Your task to perform on an android device: Show me some nice wallpapers for my laptop Image 0: 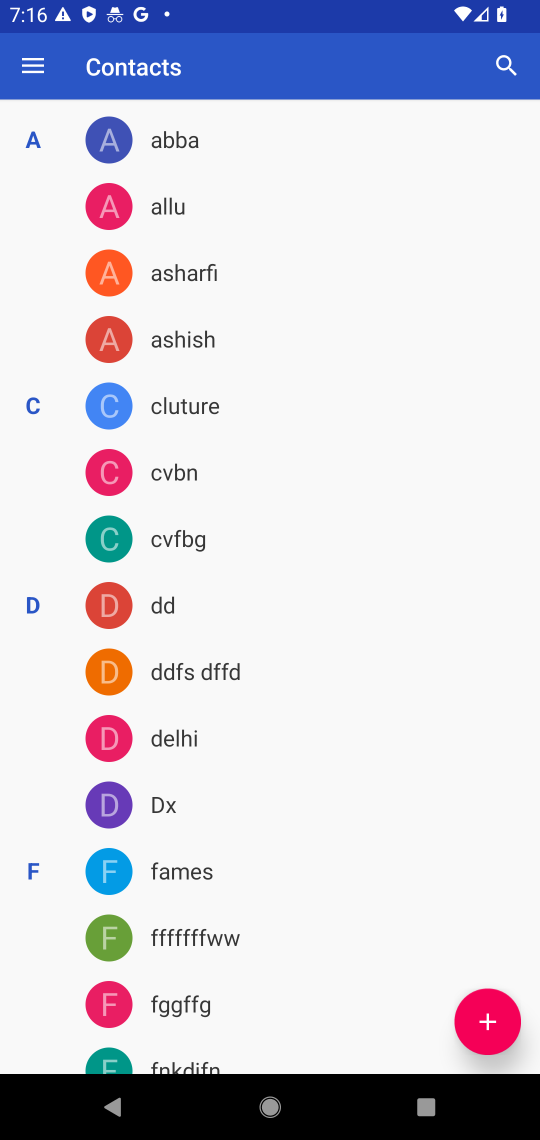
Step 0: press home button
Your task to perform on an android device: Show me some nice wallpapers for my laptop Image 1: 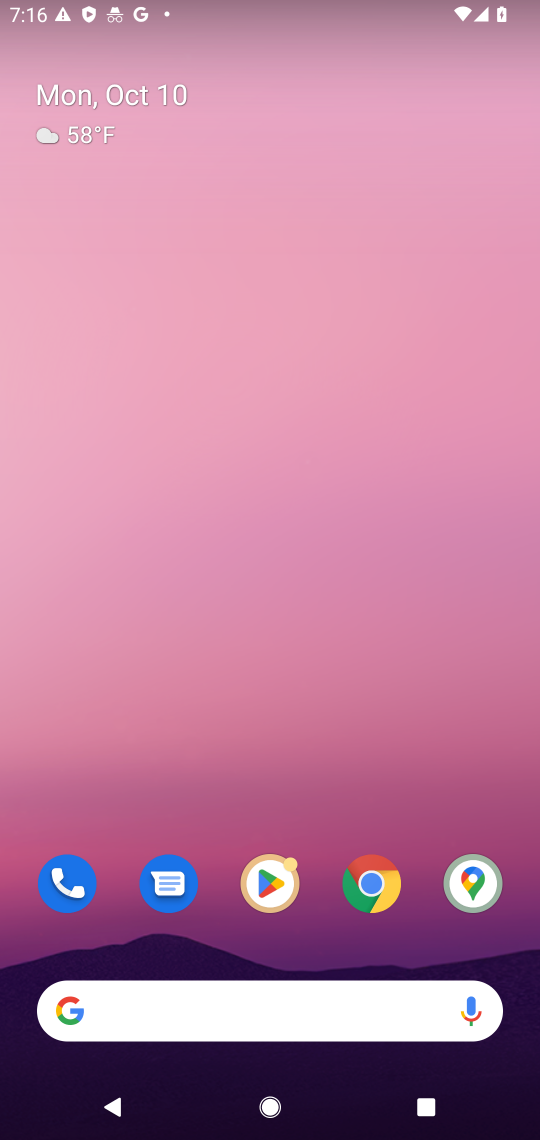
Step 1: drag from (353, 985) to (379, 218)
Your task to perform on an android device: Show me some nice wallpapers for my laptop Image 2: 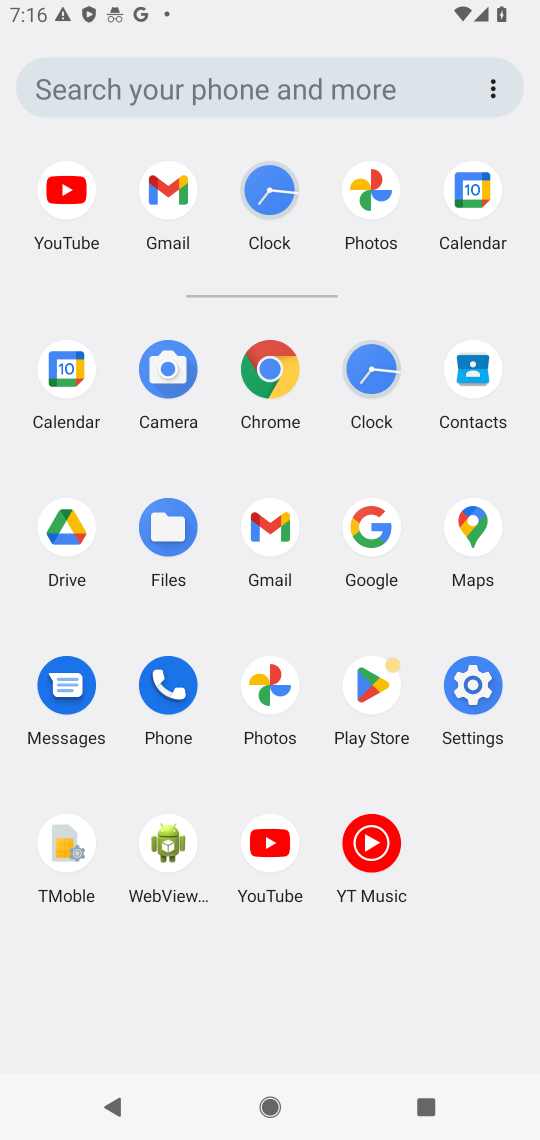
Step 2: click (382, 555)
Your task to perform on an android device: Show me some nice wallpapers for my laptop Image 3: 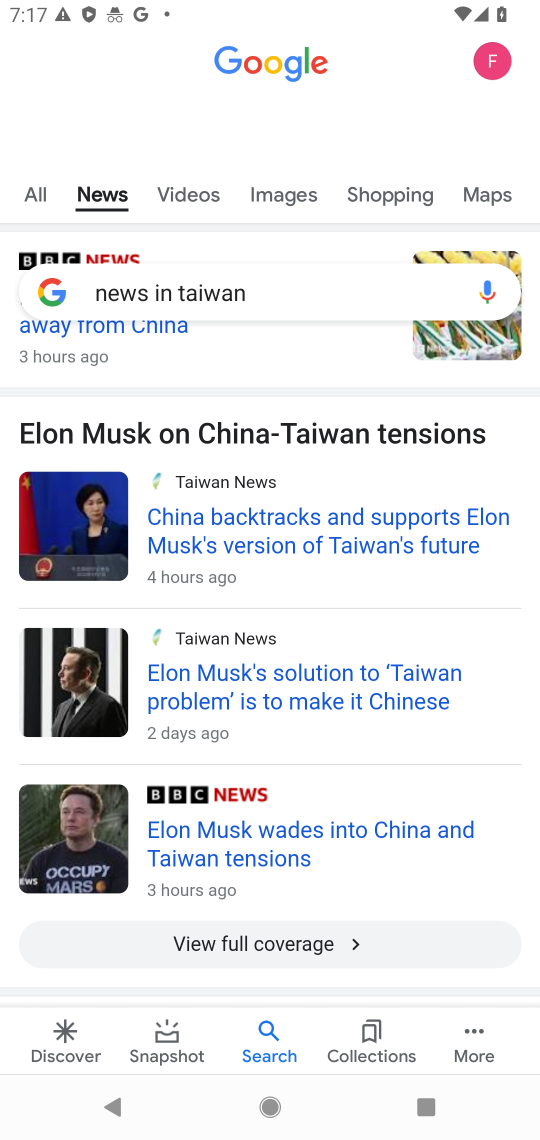
Step 3: click (308, 282)
Your task to perform on an android device: Show me some nice wallpapers for my laptop Image 4: 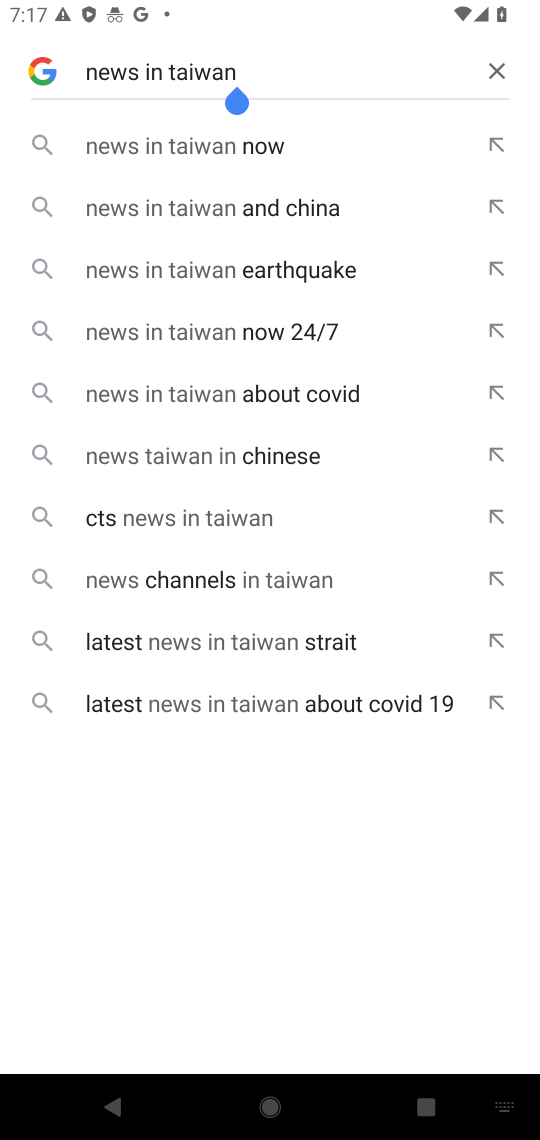
Step 4: click (502, 71)
Your task to perform on an android device: Show me some nice wallpapers for my laptop Image 5: 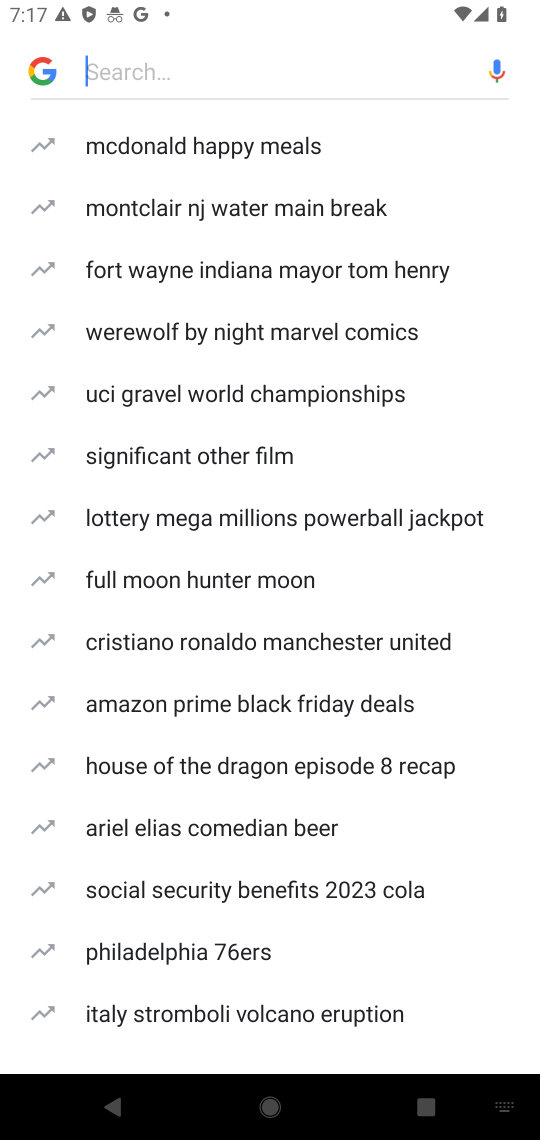
Step 5: type "nice wallpapers for my laptop"
Your task to perform on an android device: Show me some nice wallpapers for my laptop Image 6: 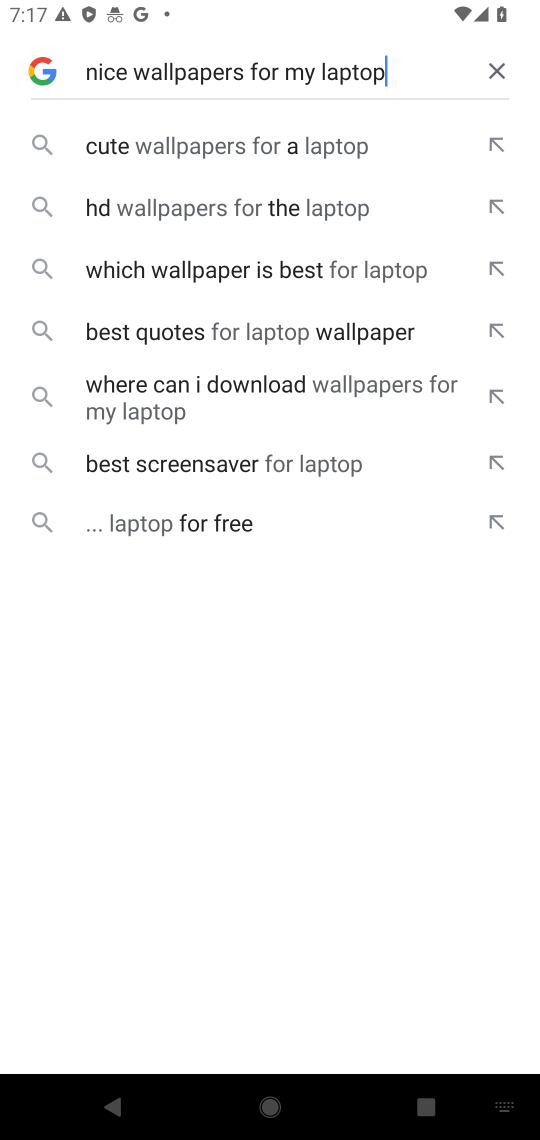
Step 6: click (405, 119)
Your task to perform on an android device: Show me some nice wallpapers for my laptop Image 7: 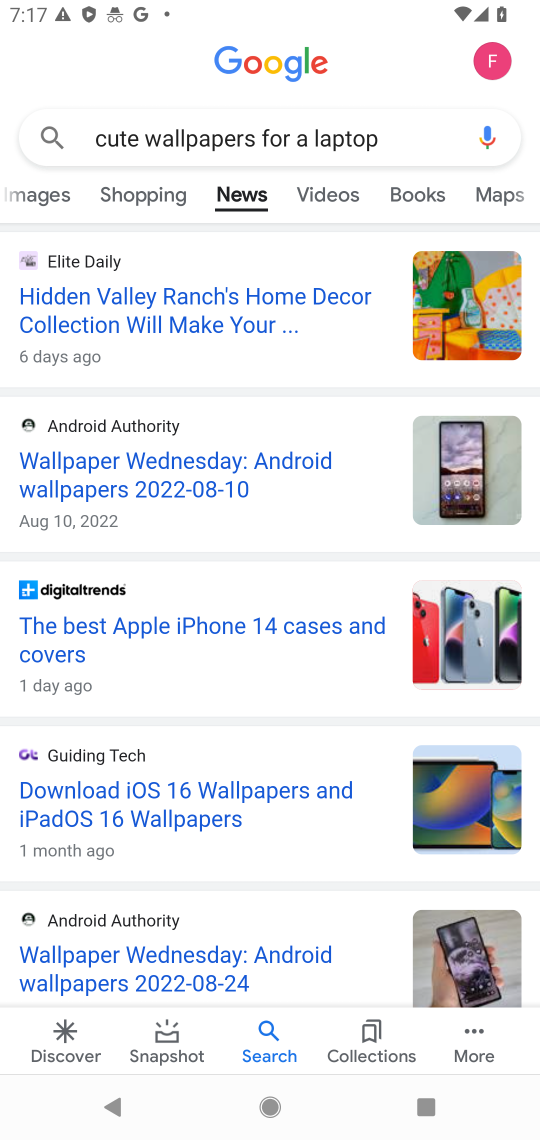
Step 7: drag from (73, 209) to (531, 326)
Your task to perform on an android device: Show me some nice wallpapers for my laptop Image 8: 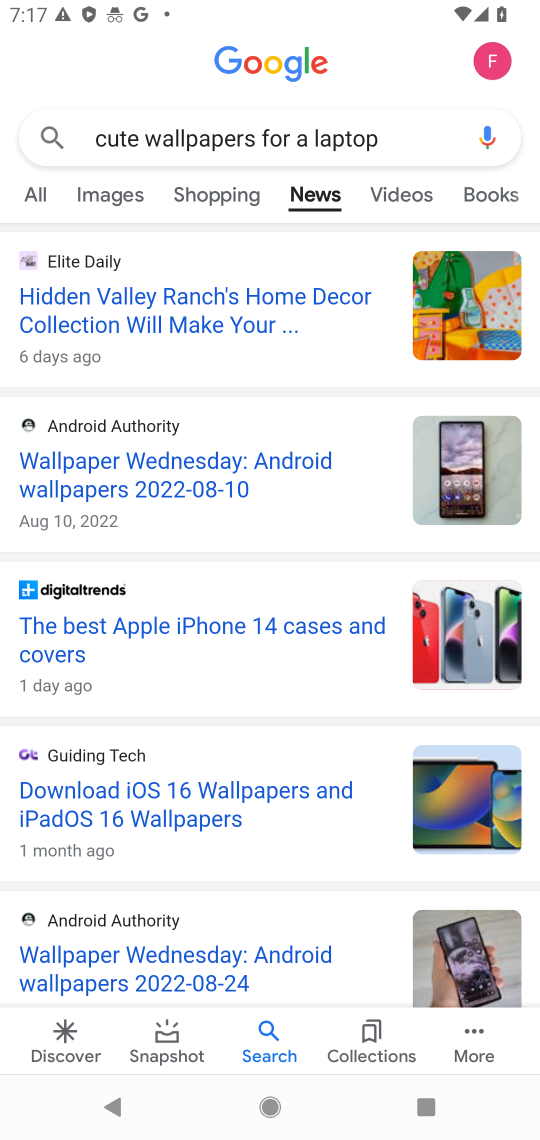
Step 8: click (48, 189)
Your task to perform on an android device: Show me some nice wallpapers for my laptop Image 9: 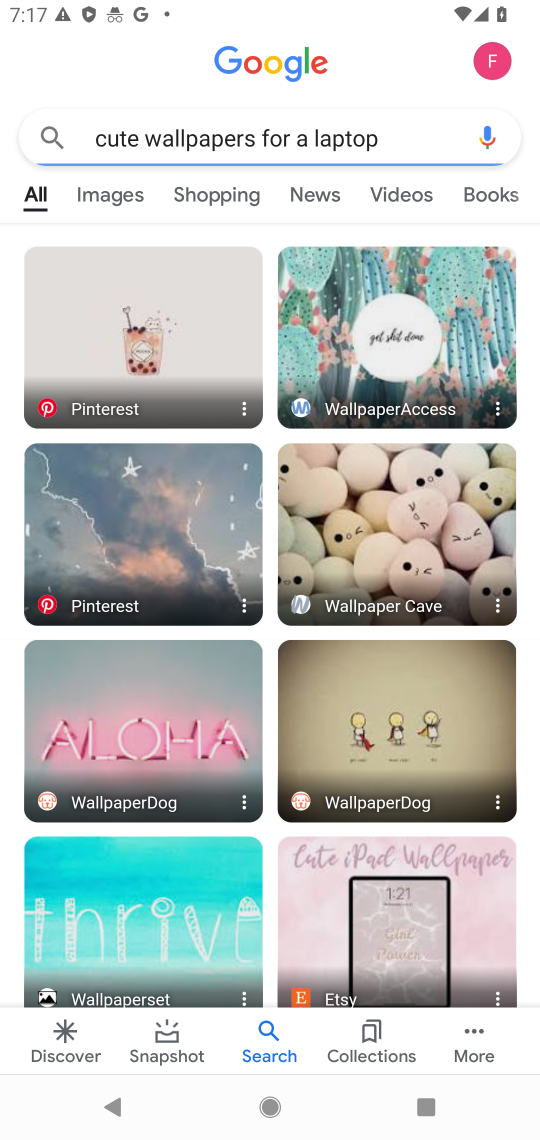
Step 9: task complete